Your task to perform on an android device: clear history in the chrome app Image 0: 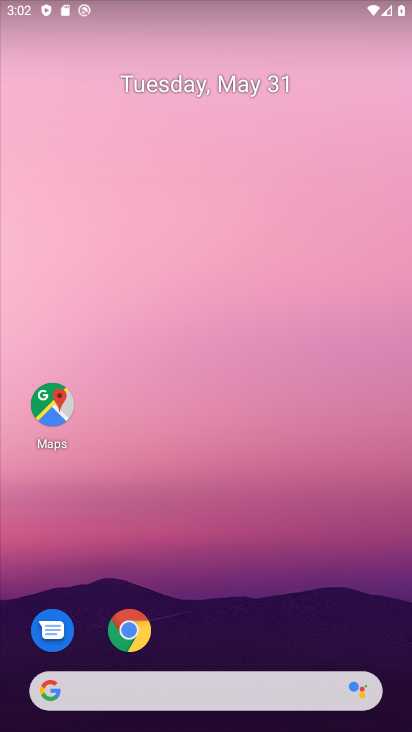
Step 0: click (136, 619)
Your task to perform on an android device: clear history in the chrome app Image 1: 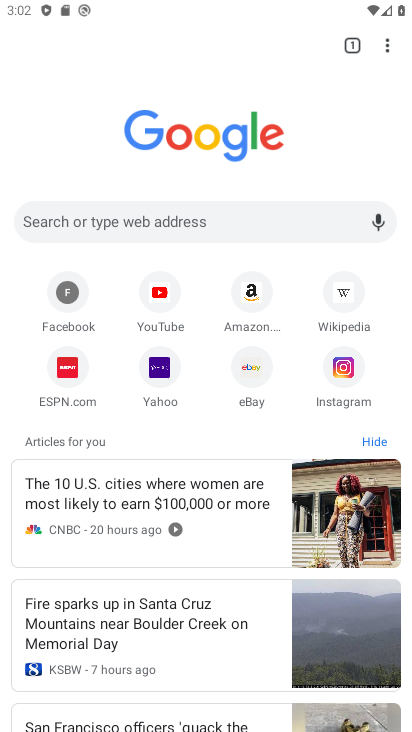
Step 1: click (394, 39)
Your task to perform on an android device: clear history in the chrome app Image 2: 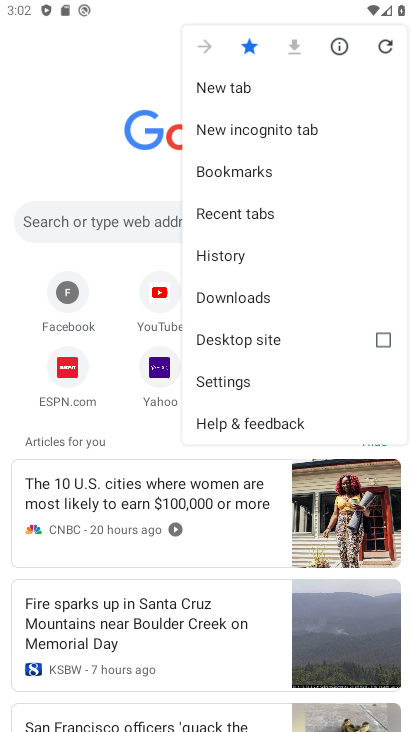
Step 2: click (202, 265)
Your task to perform on an android device: clear history in the chrome app Image 3: 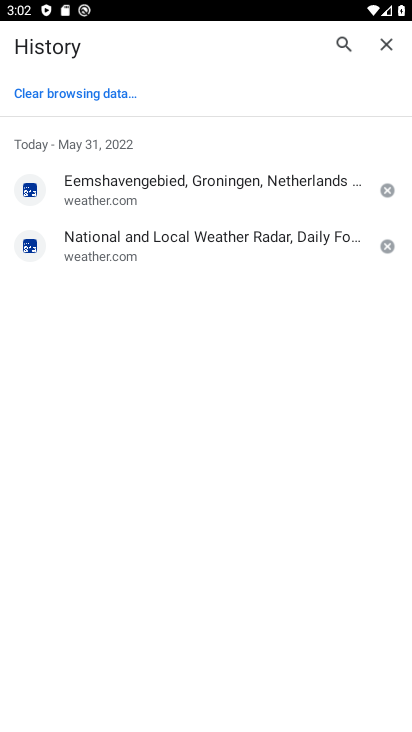
Step 3: click (56, 86)
Your task to perform on an android device: clear history in the chrome app Image 4: 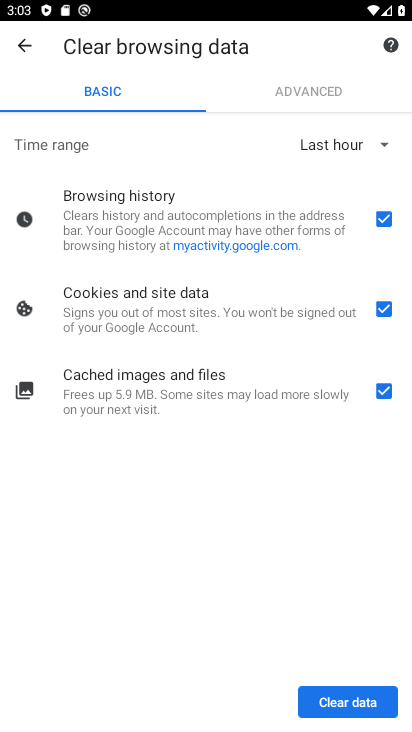
Step 4: click (398, 330)
Your task to perform on an android device: clear history in the chrome app Image 5: 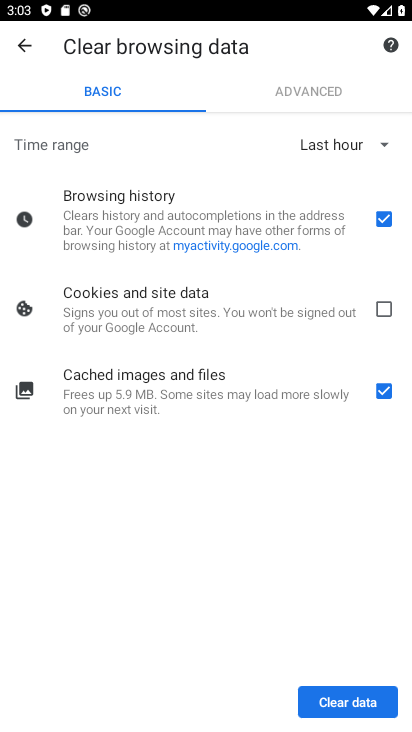
Step 5: click (385, 391)
Your task to perform on an android device: clear history in the chrome app Image 6: 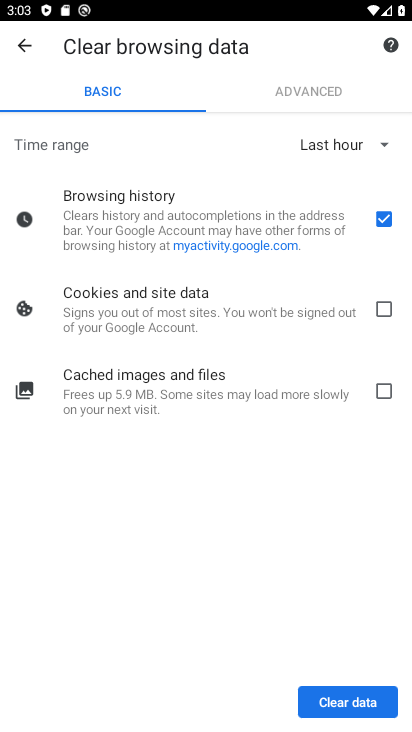
Step 6: click (327, 700)
Your task to perform on an android device: clear history in the chrome app Image 7: 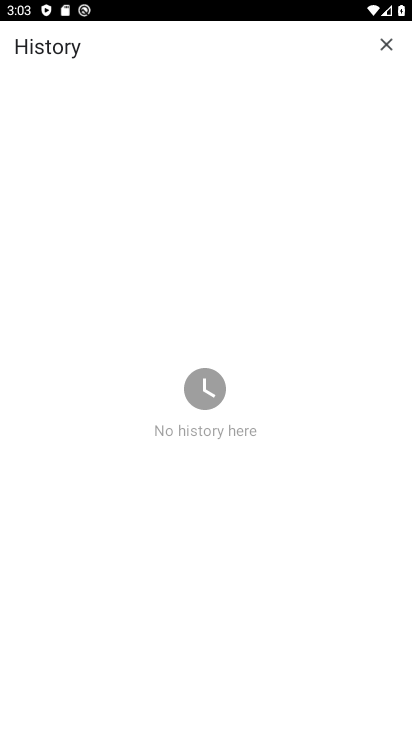
Step 7: task complete